Your task to perform on an android device: What's the weather? Image 0: 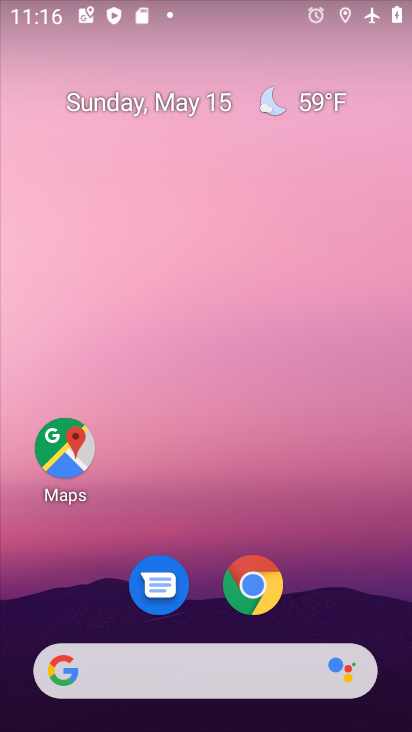
Step 0: drag from (235, 467) to (218, 54)
Your task to perform on an android device: What's the weather? Image 1: 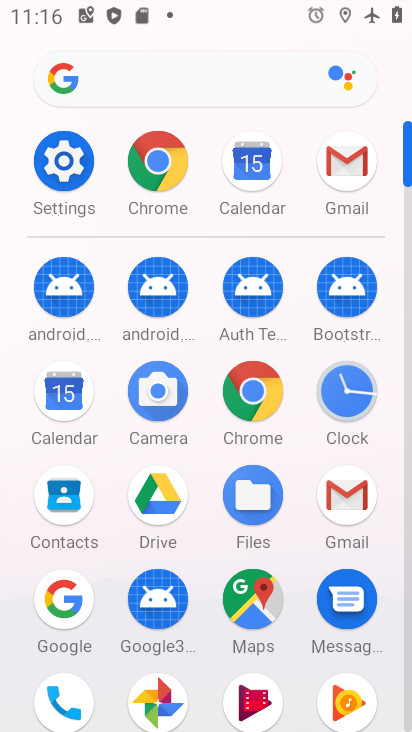
Step 1: click (60, 603)
Your task to perform on an android device: What's the weather? Image 2: 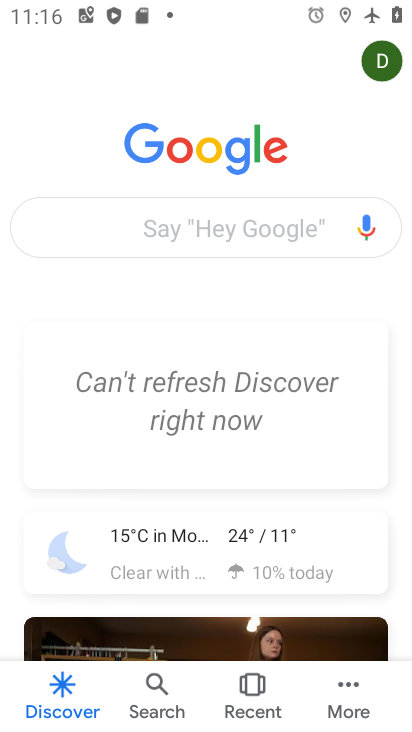
Step 2: click (271, 550)
Your task to perform on an android device: What's the weather? Image 3: 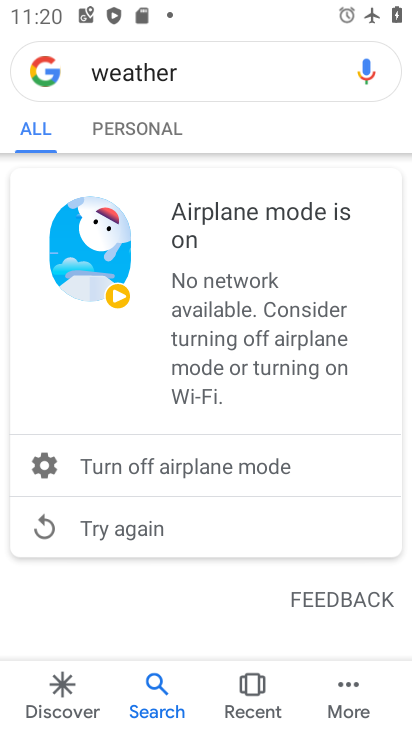
Step 3: task complete